Your task to perform on an android device: Open accessibility settings Image 0: 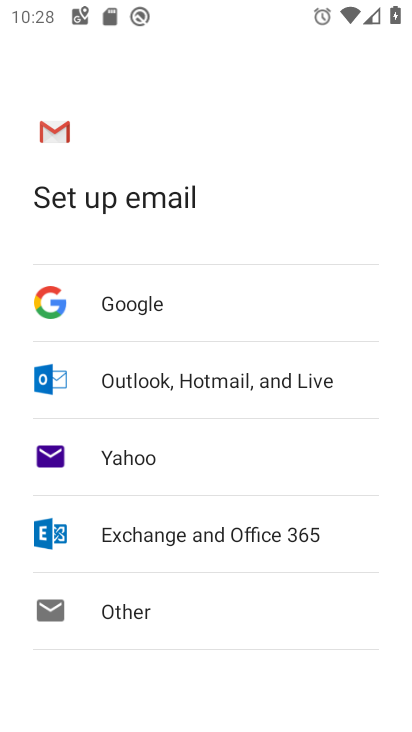
Step 0: press home button
Your task to perform on an android device: Open accessibility settings Image 1: 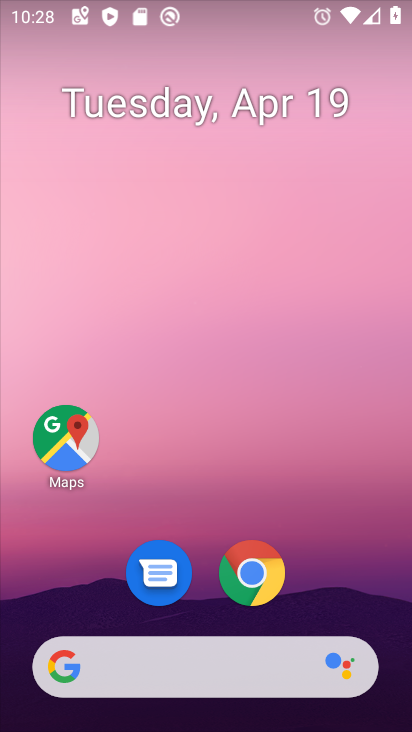
Step 1: drag from (331, 571) to (307, 109)
Your task to perform on an android device: Open accessibility settings Image 2: 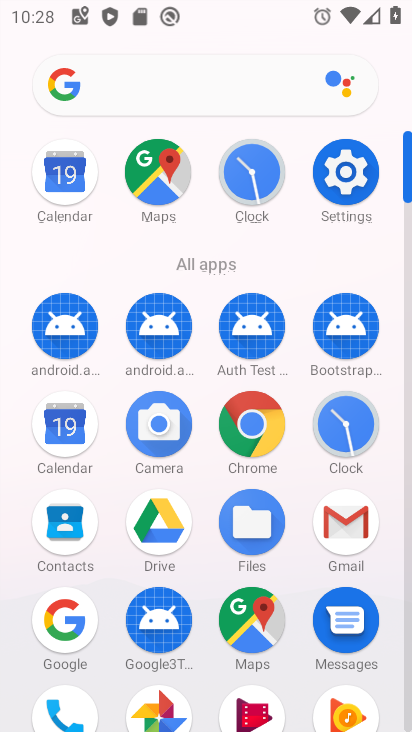
Step 2: click (352, 175)
Your task to perform on an android device: Open accessibility settings Image 3: 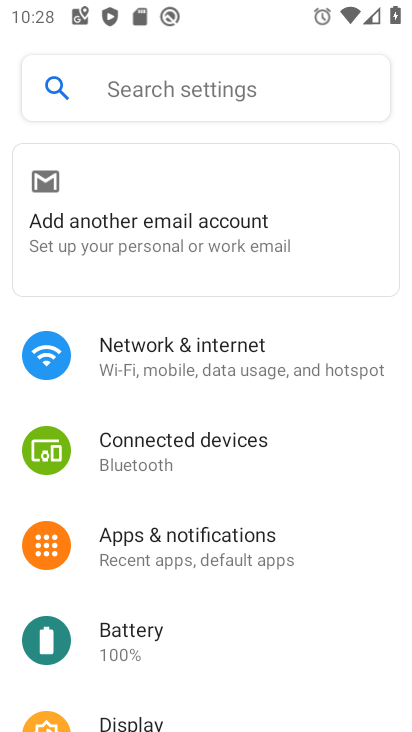
Step 3: drag from (208, 578) to (259, 98)
Your task to perform on an android device: Open accessibility settings Image 4: 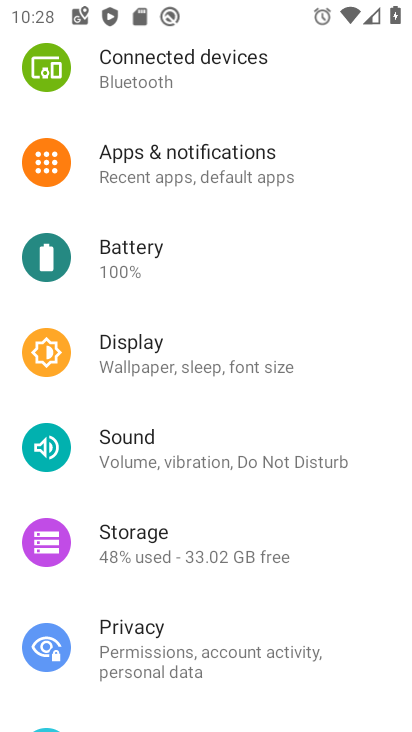
Step 4: drag from (329, 633) to (302, 152)
Your task to perform on an android device: Open accessibility settings Image 5: 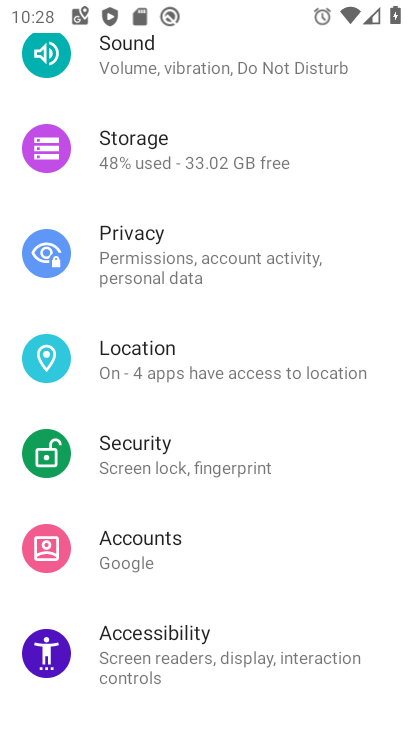
Step 5: click (152, 660)
Your task to perform on an android device: Open accessibility settings Image 6: 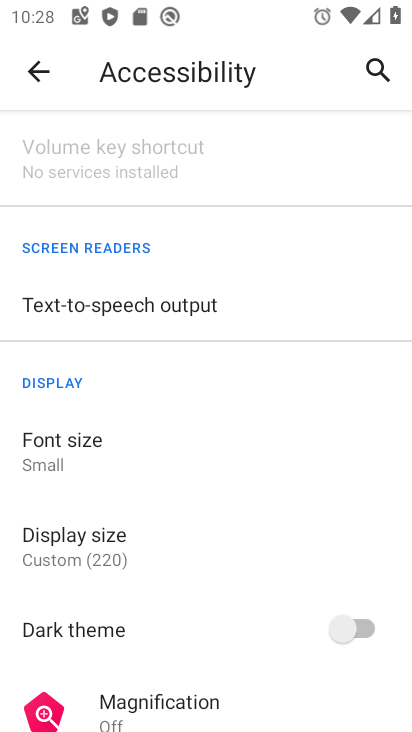
Step 6: task complete